Your task to perform on an android device: Is it going to rain tomorrow? Image 0: 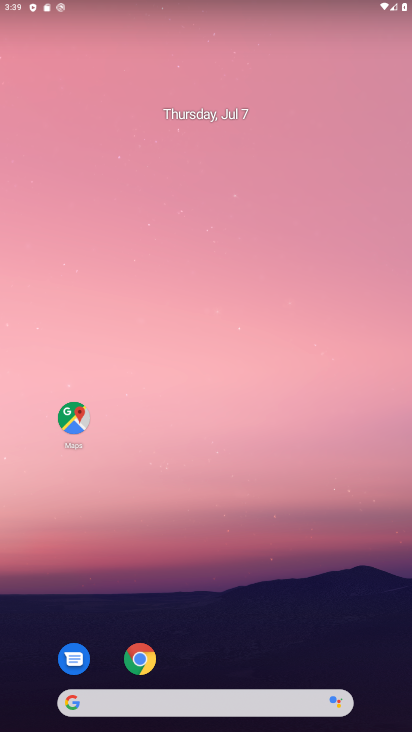
Step 0: click (200, 700)
Your task to perform on an android device: Is it going to rain tomorrow? Image 1: 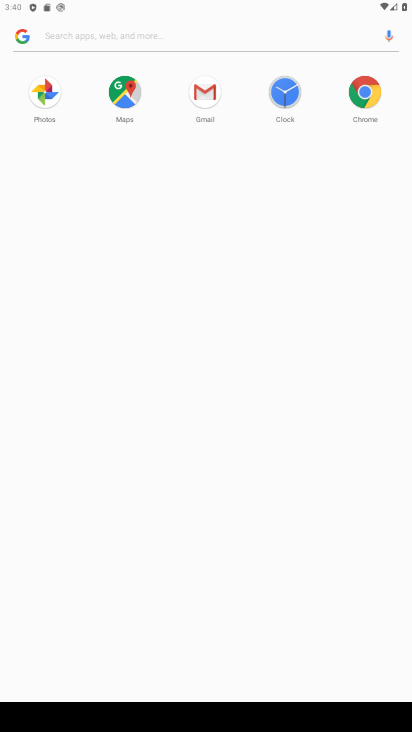
Step 1: type "weather today"
Your task to perform on an android device: Is it going to rain tomorrow? Image 2: 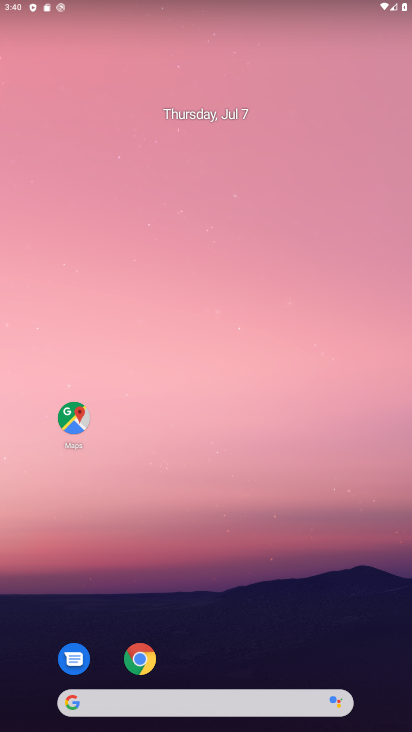
Step 2: click (244, 697)
Your task to perform on an android device: Is it going to rain tomorrow? Image 3: 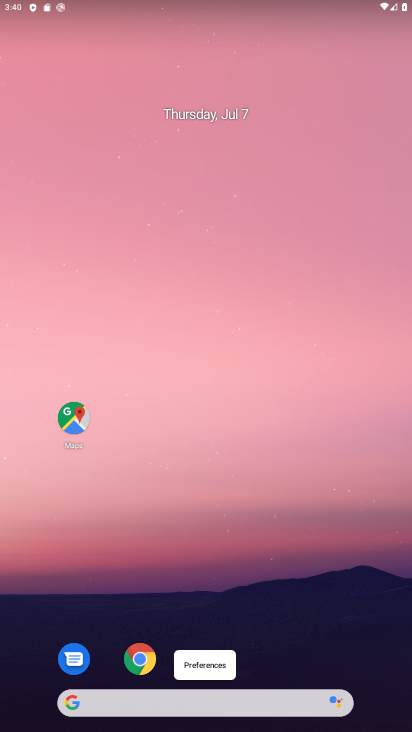
Step 3: click (213, 708)
Your task to perform on an android device: Is it going to rain tomorrow? Image 4: 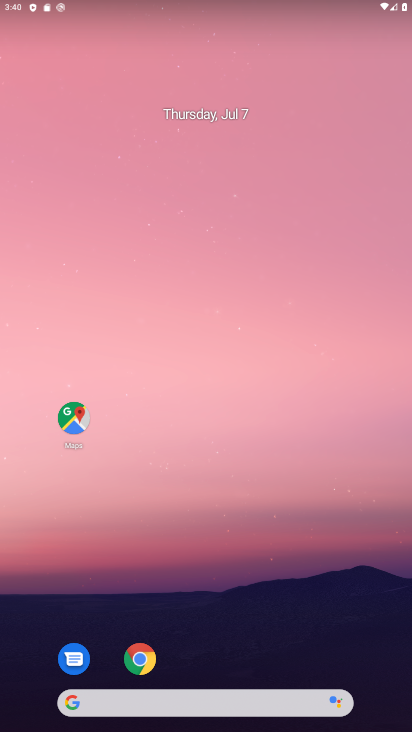
Step 4: click (213, 708)
Your task to perform on an android device: Is it going to rain tomorrow? Image 5: 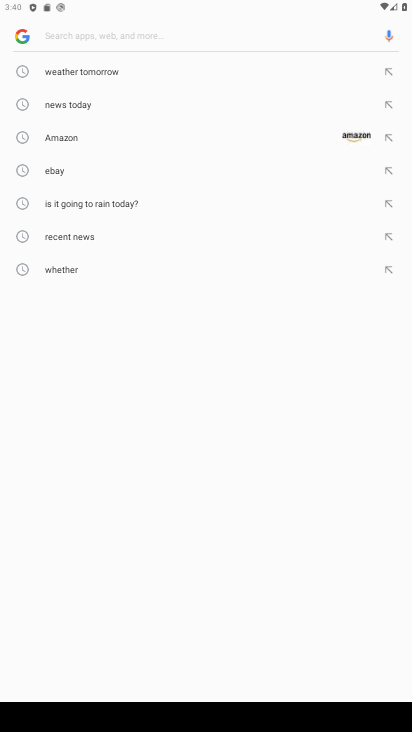
Step 5: type "weather"
Your task to perform on an android device: Is it going to rain tomorrow? Image 6: 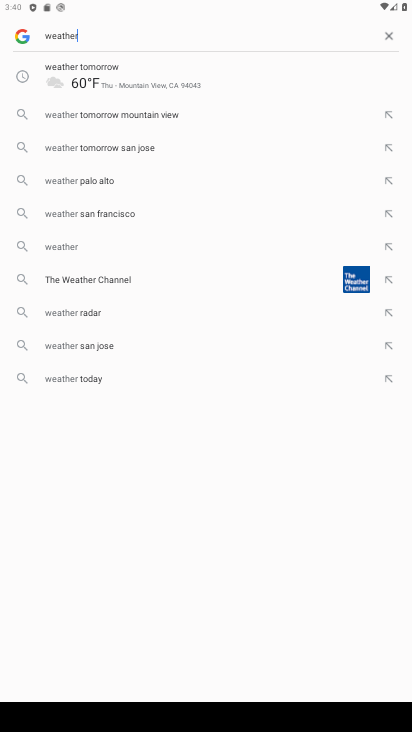
Step 6: click (110, 76)
Your task to perform on an android device: Is it going to rain tomorrow? Image 7: 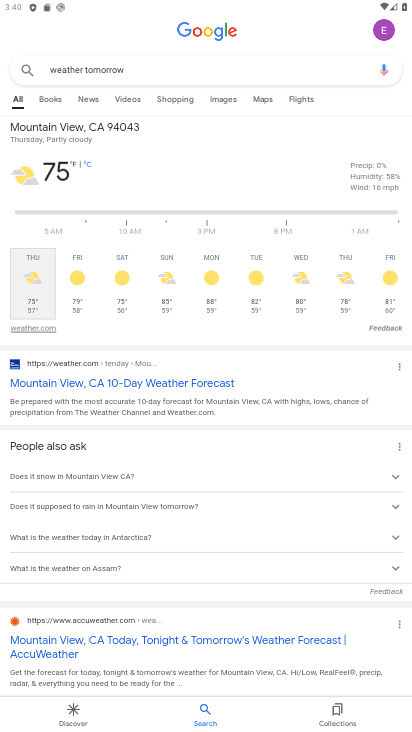
Step 7: task complete